Your task to perform on an android device: install app "Gmail" Image 0: 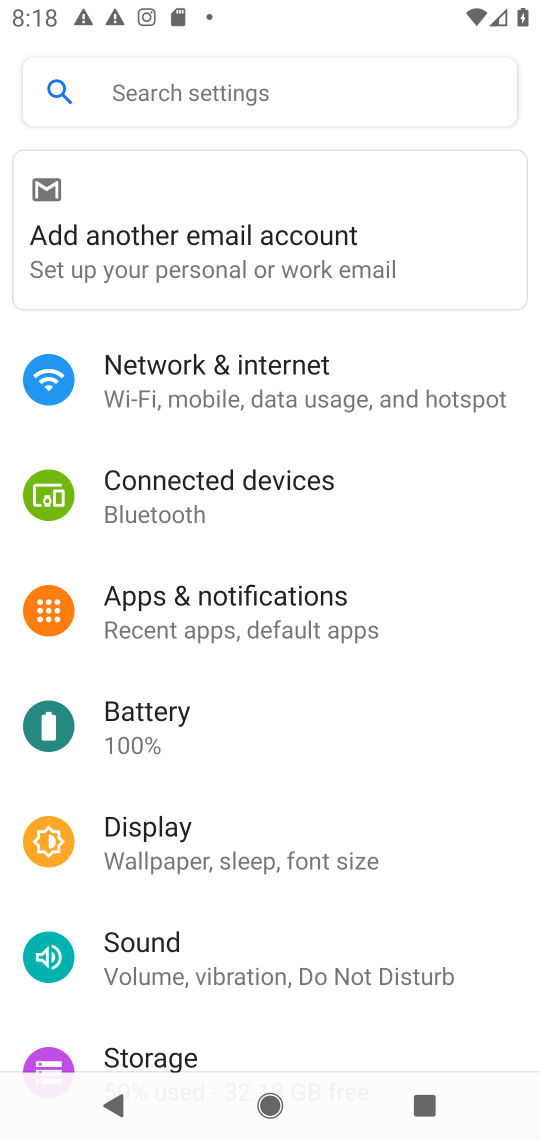
Step 0: press home button
Your task to perform on an android device: install app "Gmail" Image 1: 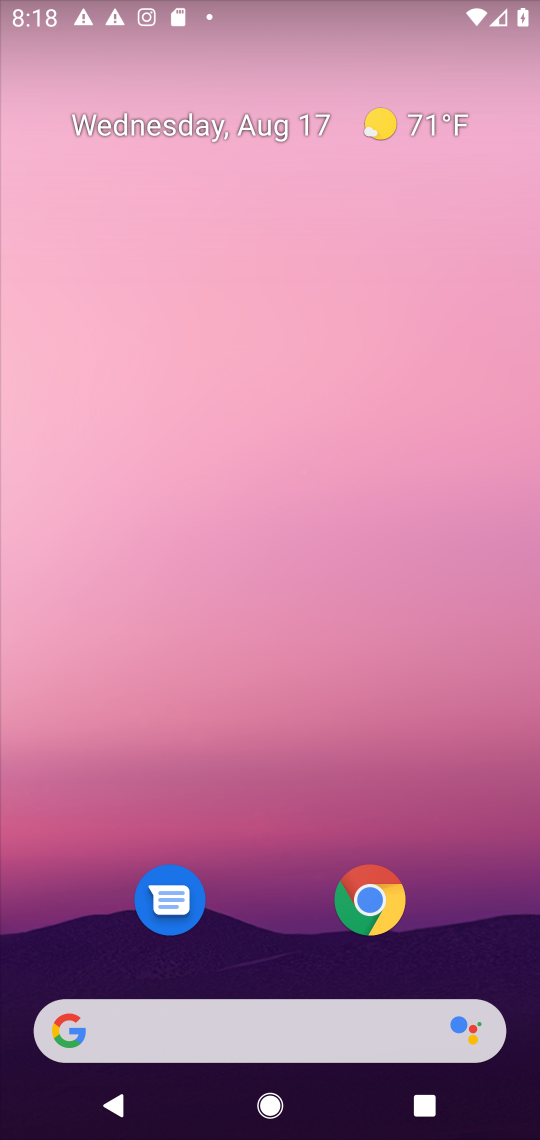
Step 1: drag from (472, 878) to (209, 34)
Your task to perform on an android device: install app "Gmail" Image 2: 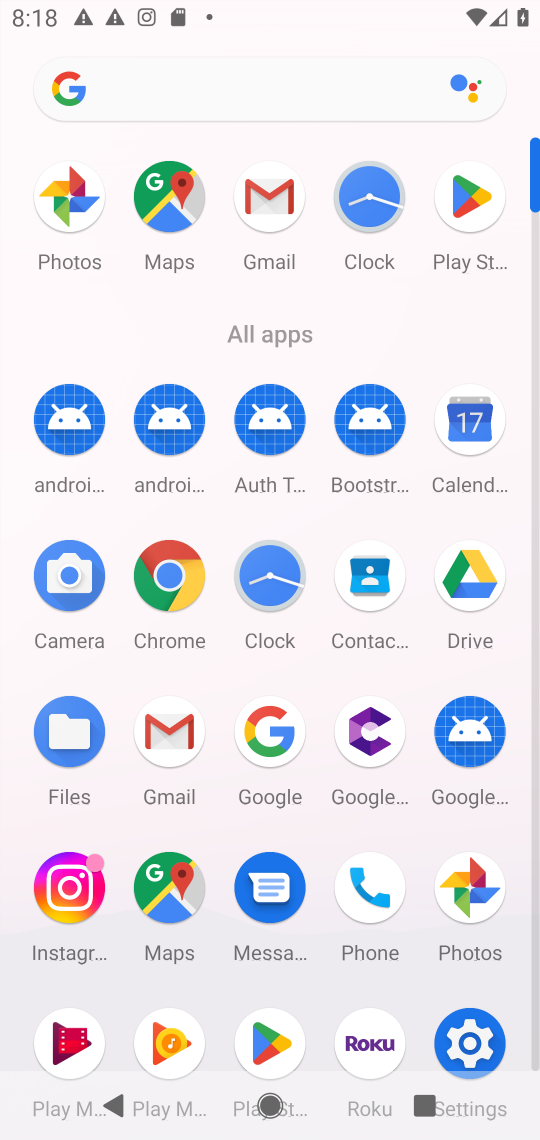
Step 2: click (272, 208)
Your task to perform on an android device: install app "Gmail" Image 3: 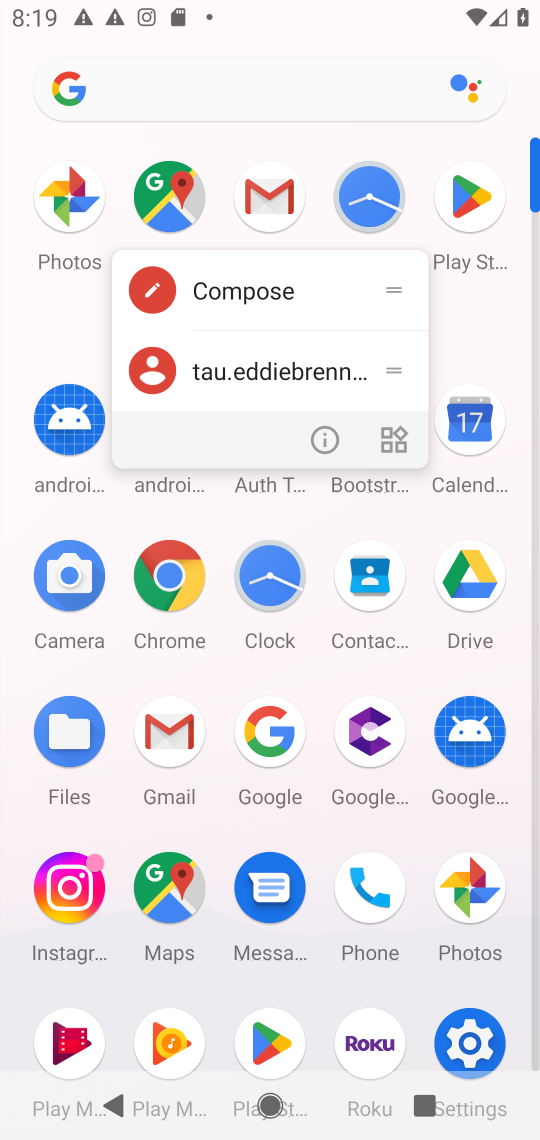
Step 3: task complete